Your task to perform on an android device: check battery use Image 0: 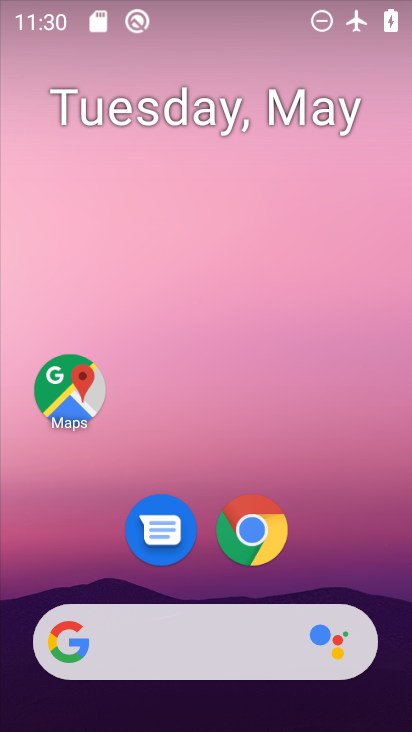
Step 0: drag from (346, 513) to (264, 50)
Your task to perform on an android device: check battery use Image 1: 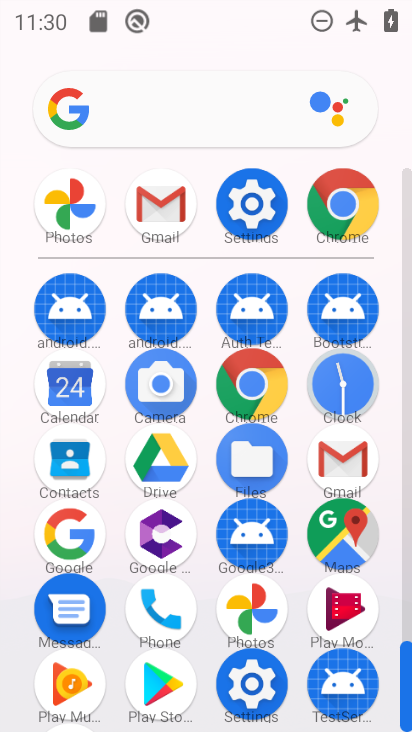
Step 1: click (245, 199)
Your task to perform on an android device: check battery use Image 2: 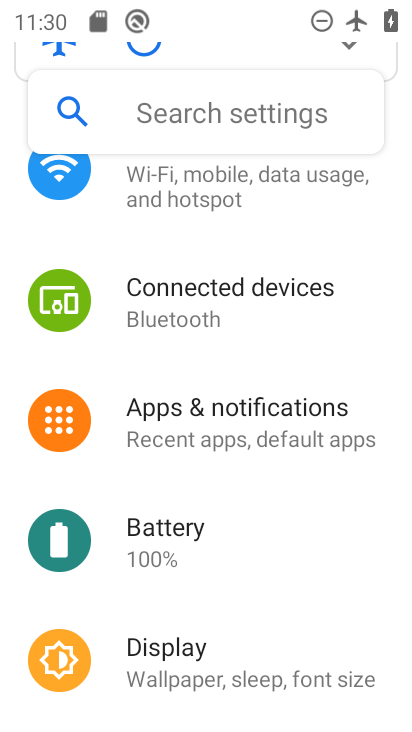
Step 2: click (183, 549)
Your task to perform on an android device: check battery use Image 3: 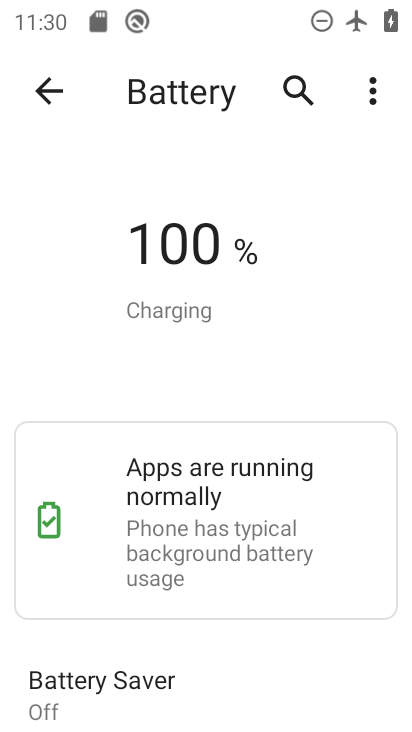
Step 3: click (380, 83)
Your task to perform on an android device: check battery use Image 4: 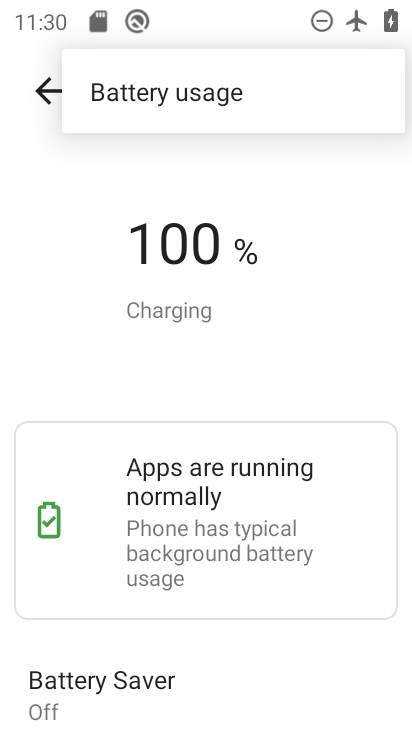
Step 4: click (226, 94)
Your task to perform on an android device: check battery use Image 5: 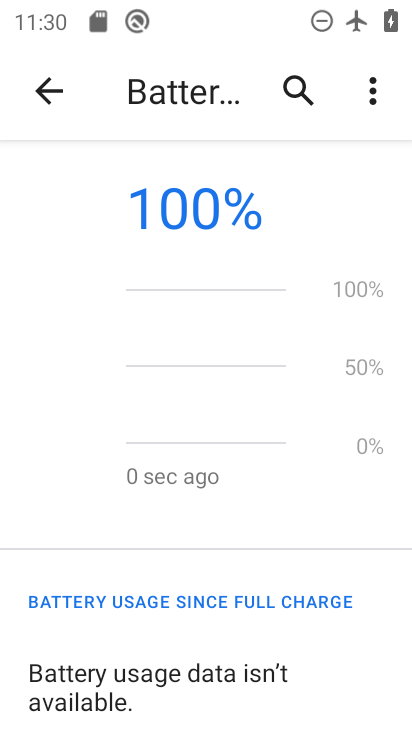
Step 5: task complete